Your task to perform on an android device: open a bookmark in the chrome app Image 0: 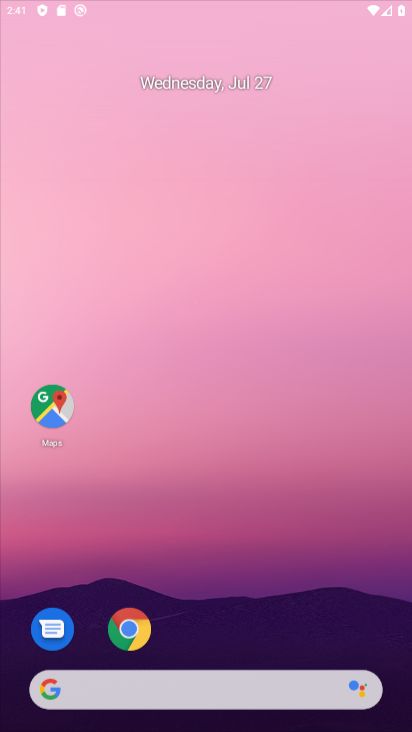
Step 0: press home button
Your task to perform on an android device: open a bookmark in the chrome app Image 1: 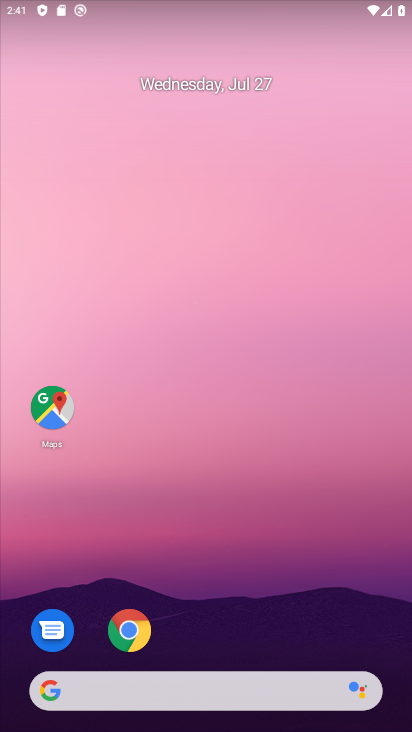
Step 1: drag from (300, 624) to (307, 145)
Your task to perform on an android device: open a bookmark in the chrome app Image 2: 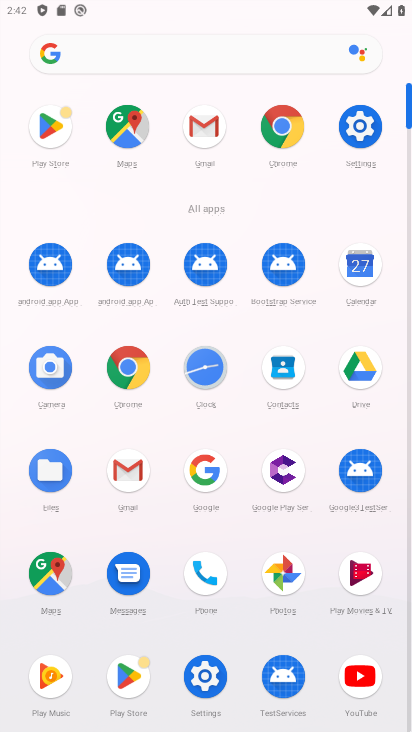
Step 2: click (294, 147)
Your task to perform on an android device: open a bookmark in the chrome app Image 3: 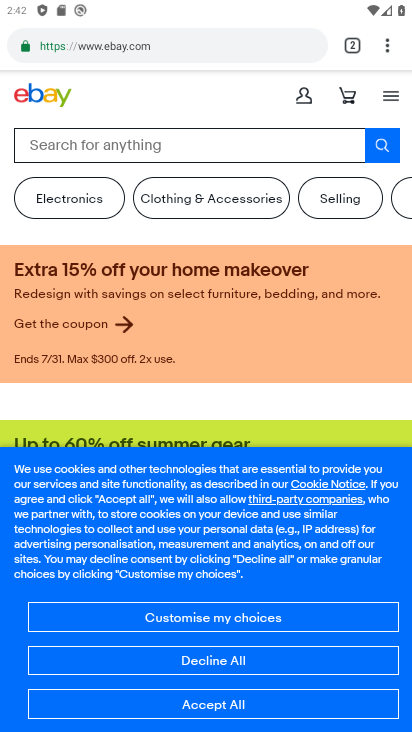
Step 3: drag from (399, 41) to (244, 225)
Your task to perform on an android device: open a bookmark in the chrome app Image 4: 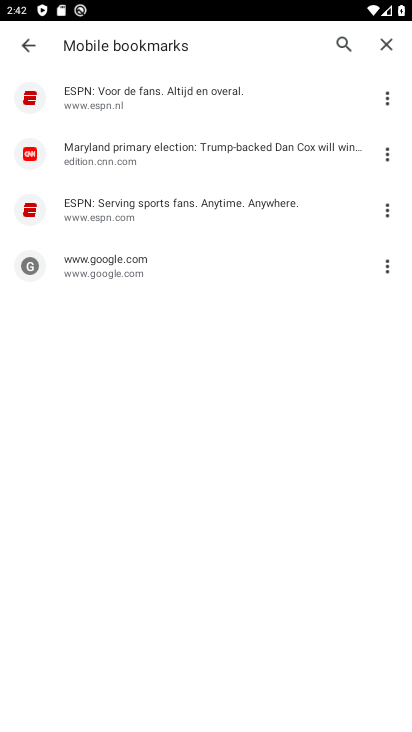
Step 4: click (115, 149)
Your task to perform on an android device: open a bookmark in the chrome app Image 5: 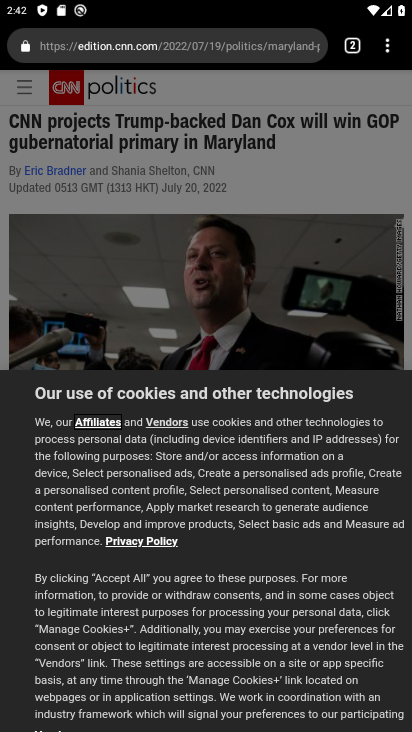
Step 5: task complete